Your task to perform on an android device: clear all cookies in the chrome app Image 0: 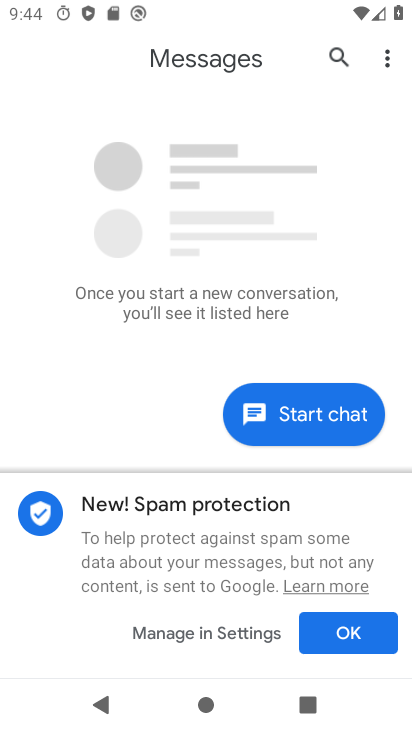
Step 0: press home button
Your task to perform on an android device: clear all cookies in the chrome app Image 1: 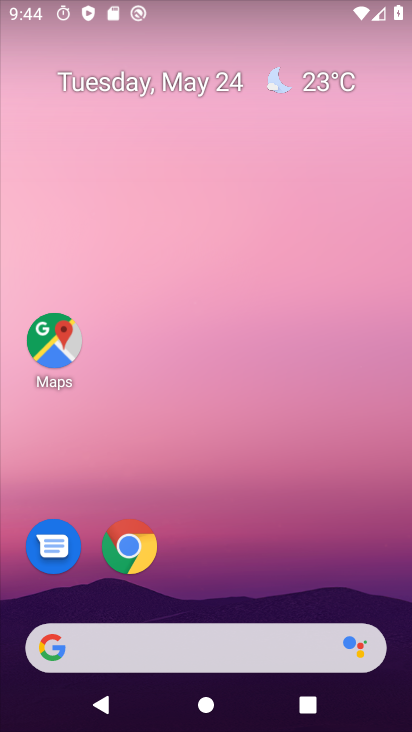
Step 1: click (129, 549)
Your task to perform on an android device: clear all cookies in the chrome app Image 2: 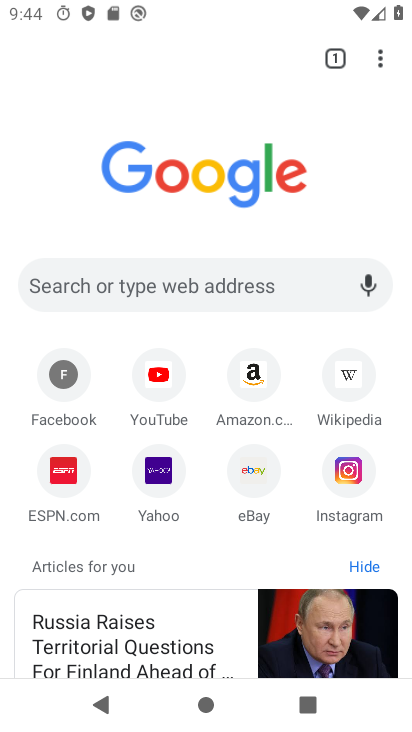
Step 2: click (374, 58)
Your task to perform on an android device: clear all cookies in the chrome app Image 3: 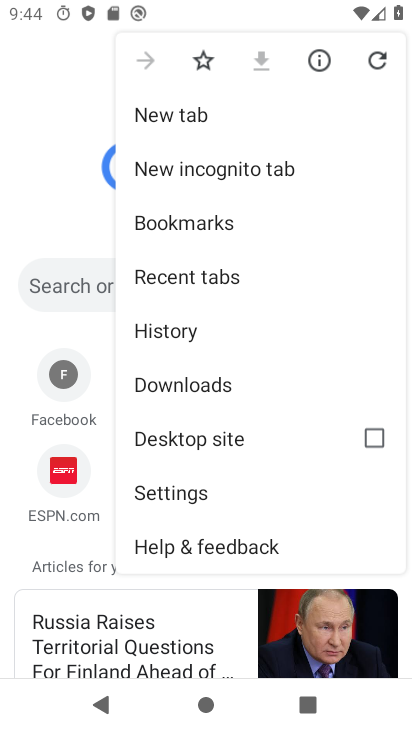
Step 3: click (207, 495)
Your task to perform on an android device: clear all cookies in the chrome app Image 4: 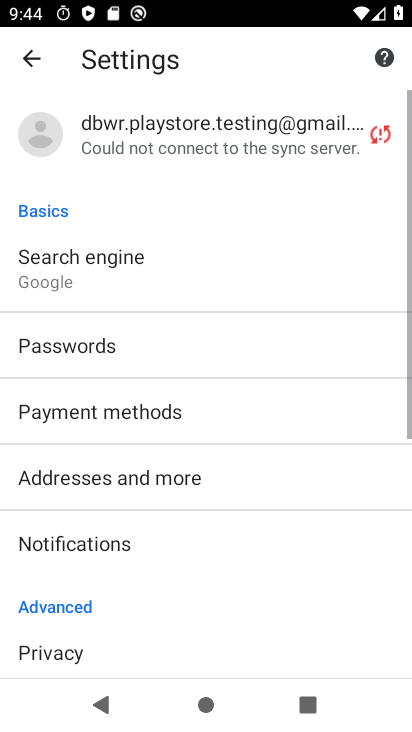
Step 4: drag from (245, 599) to (311, 233)
Your task to perform on an android device: clear all cookies in the chrome app Image 5: 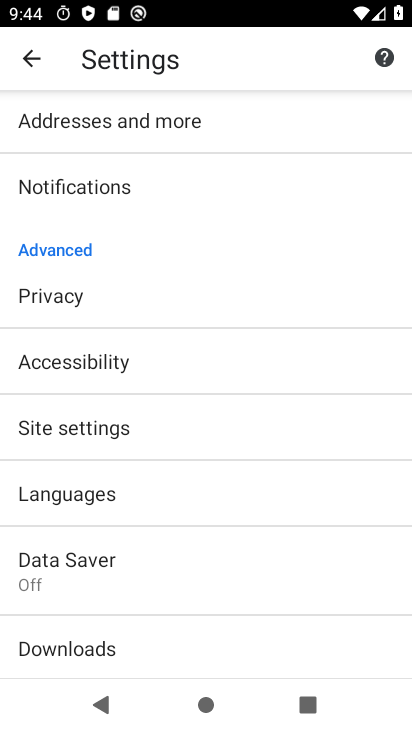
Step 5: click (129, 295)
Your task to perform on an android device: clear all cookies in the chrome app Image 6: 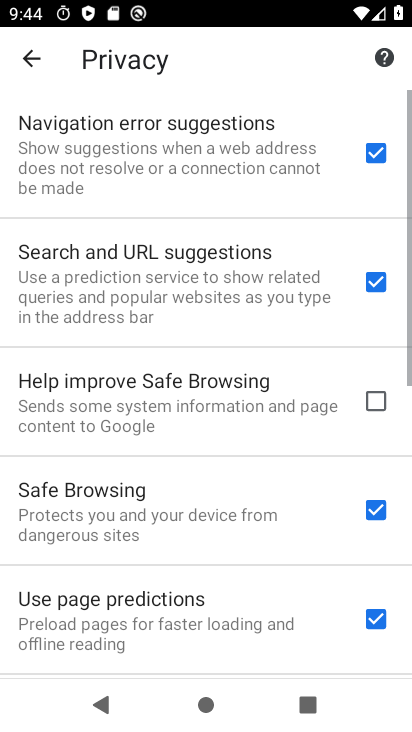
Step 6: drag from (255, 583) to (274, 167)
Your task to perform on an android device: clear all cookies in the chrome app Image 7: 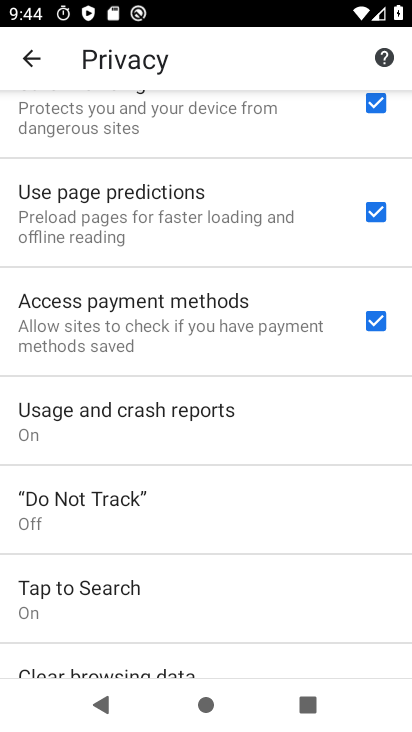
Step 7: drag from (209, 553) to (219, 56)
Your task to perform on an android device: clear all cookies in the chrome app Image 8: 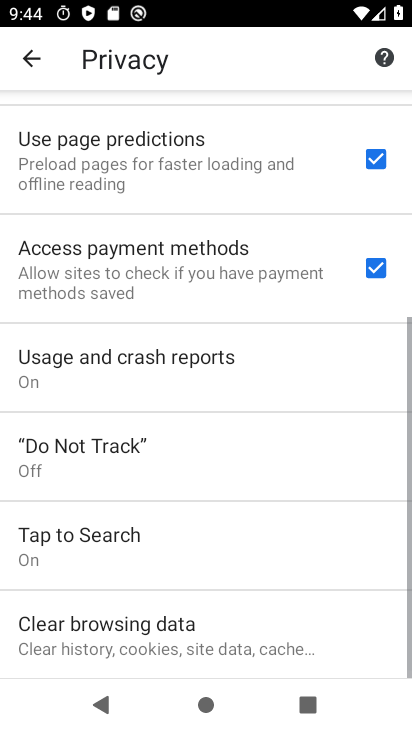
Step 8: click (130, 645)
Your task to perform on an android device: clear all cookies in the chrome app Image 9: 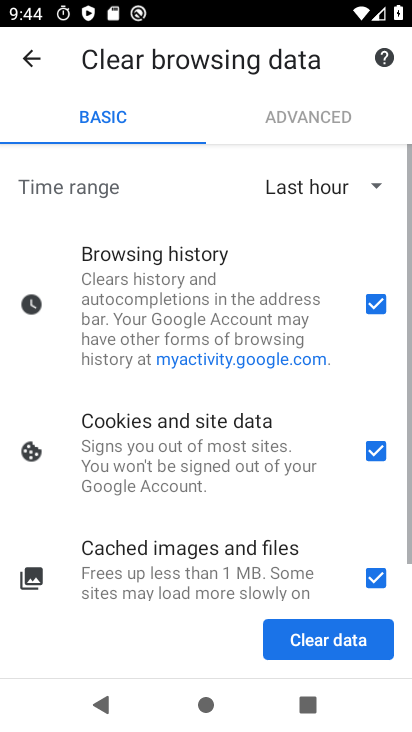
Step 9: click (378, 305)
Your task to perform on an android device: clear all cookies in the chrome app Image 10: 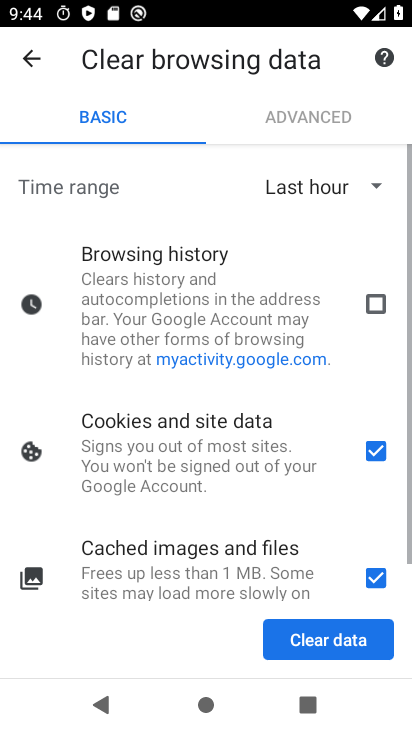
Step 10: click (378, 580)
Your task to perform on an android device: clear all cookies in the chrome app Image 11: 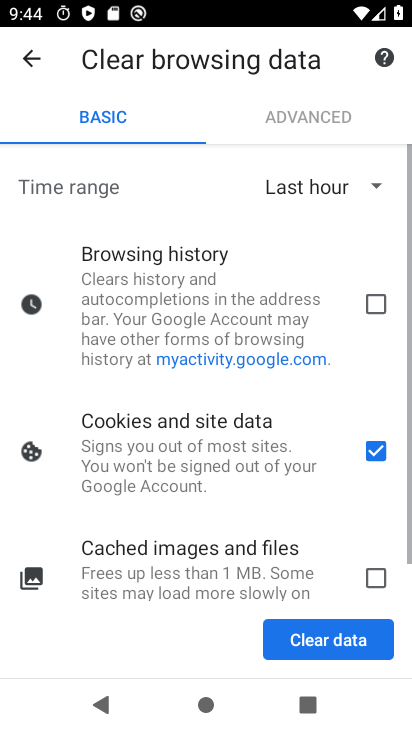
Step 11: click (332, 639)
Your task to perform on an android device: clear all cookies in the chrome app Image 12: 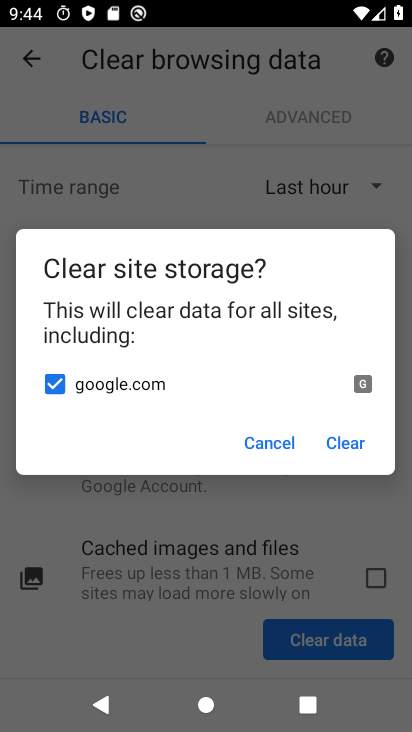
Step 12: click (342, 443)
Your task to perform on an android device: clear all cookies in the chrome app Image 13: 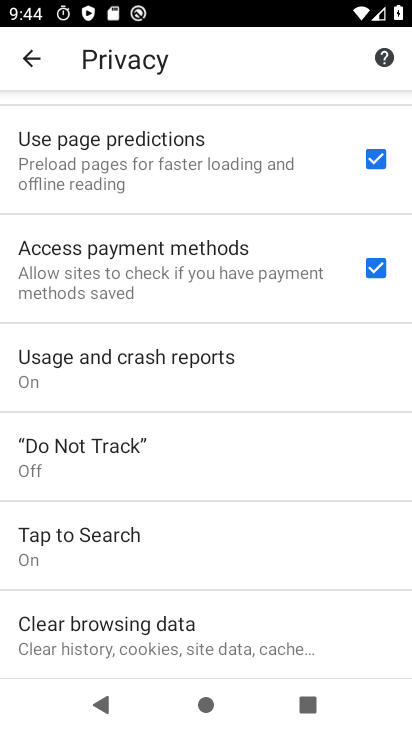
Step 13: task complete